Your task to perform on an android device: turn on sleep mode Image 0: 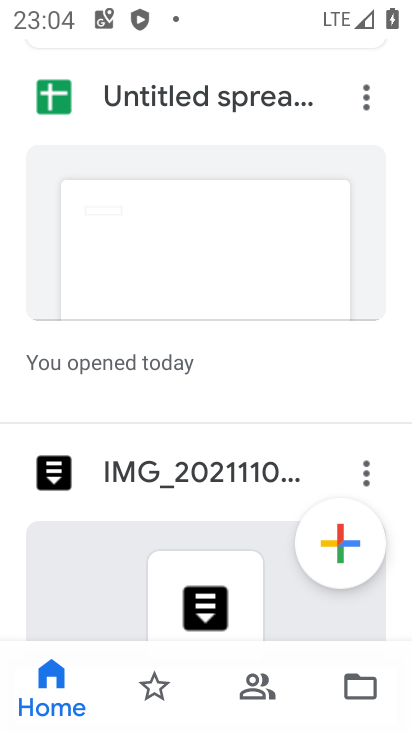
Step 0: press home button
Your task to perform on an android device: turn on sleep mode Image 1: 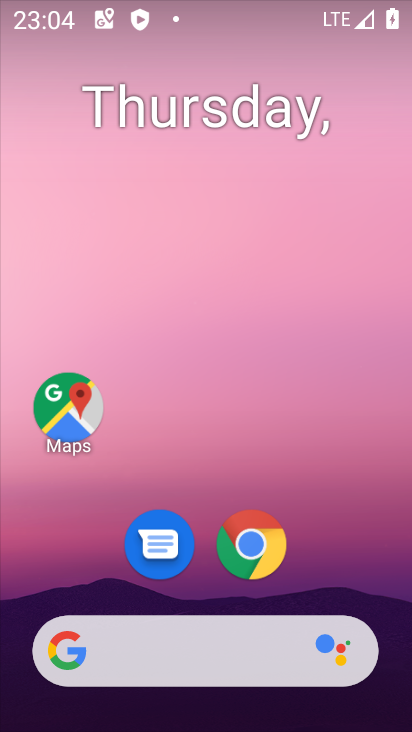
Step 1: drag from (224, 415) to (229, 50)
Your task to perform on an android device: turn on sleep mode Image 2: 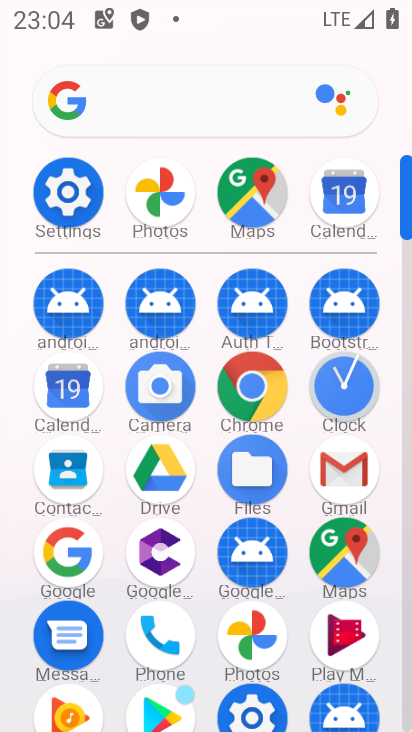
Step 2: click (58, 193)
Your task to perform on an android device: turn on sleep mode Image 3: 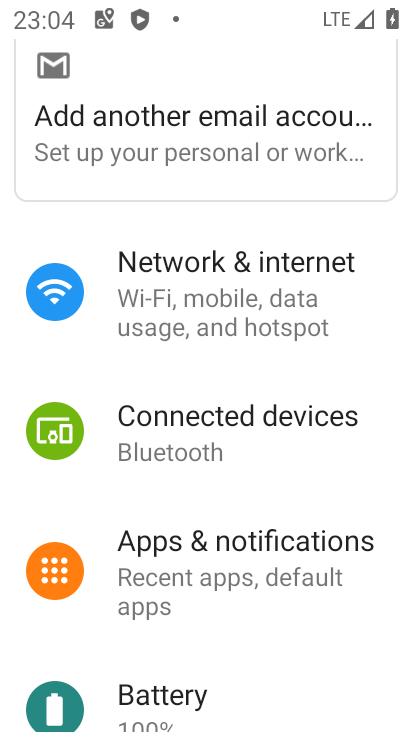
Step 3: drag from (193, 670) to (188, 306)
Your task to perform on an android device: turn on sleep mode Image 4: 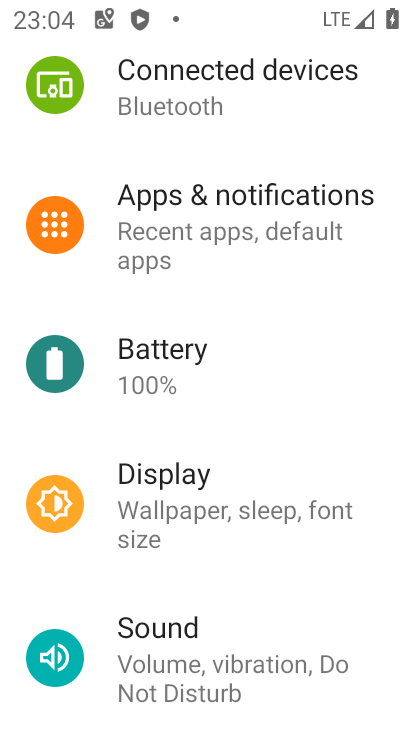
Step 4: click (210, 524)
Your task to perform on an android device: turn on sleep mode Image 5: 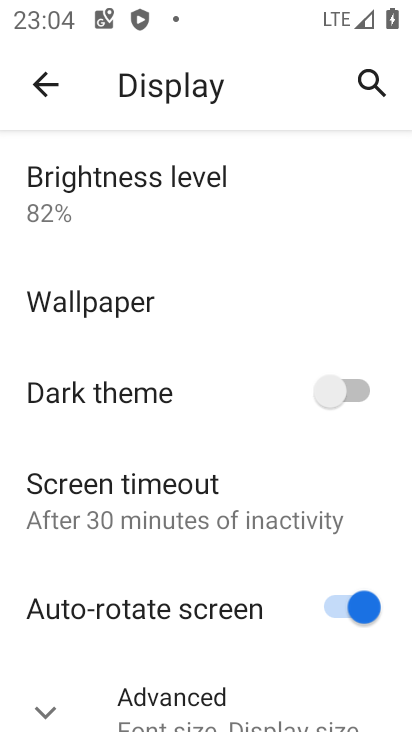
Step 5: click (148, 709)
Your task to perform on an android device: turn on sleep mode Image 6: 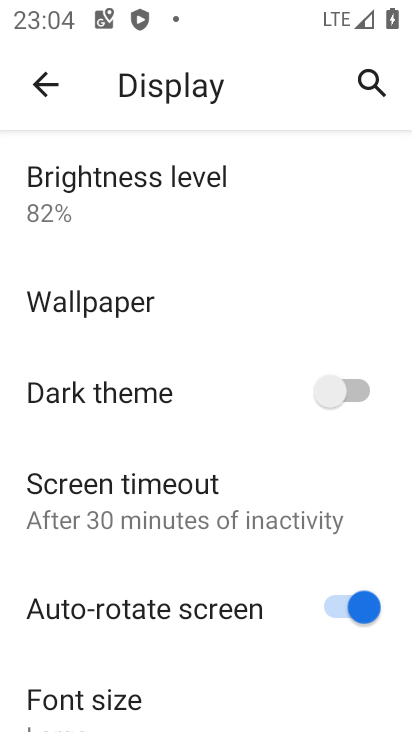
Step 6: task complete